Your task to perform on an android device: Open Google Chrome Image 0: 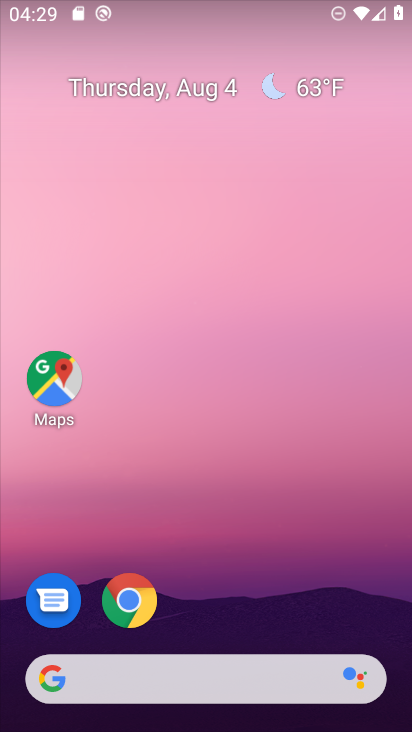
Step 0: drag from (310, 519) to (344, 105)
Your task to perform on an android device: Open Google Chrome Image 1: 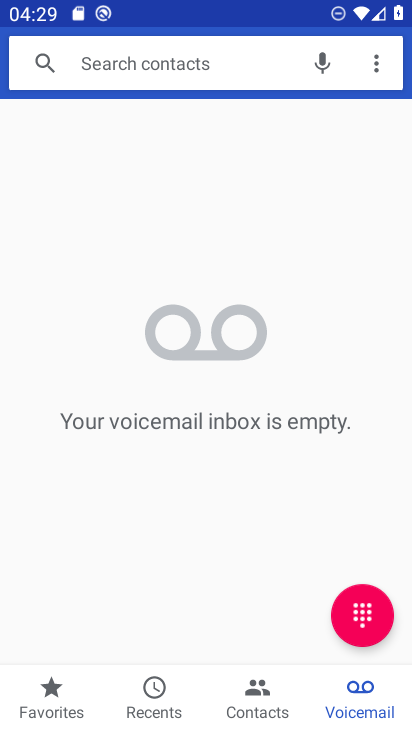
Step 1: press home button
Your task to perform on an android device: Open Google Chrome Image 2: 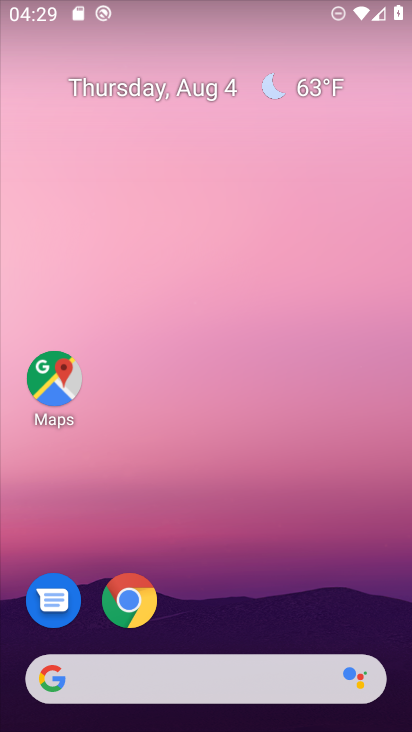
Step 2: drag from (266, 601) to (316, 99)
Your task to perform on an android device: Open Google Chrome Image 3: 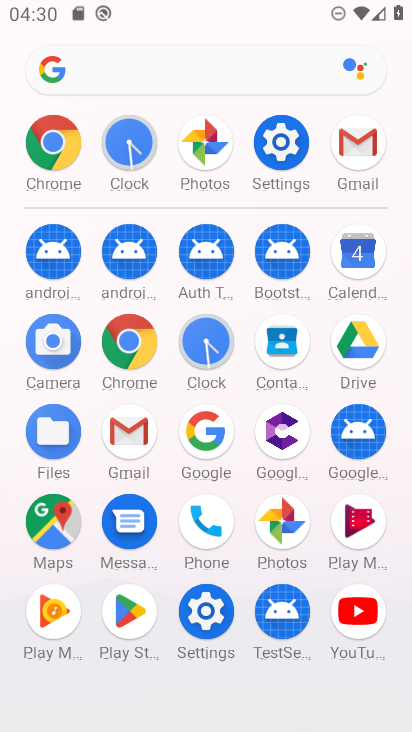
Step 3: click (118, 350)
Your task to perform on an android device: Open Google Chrome Image 4: 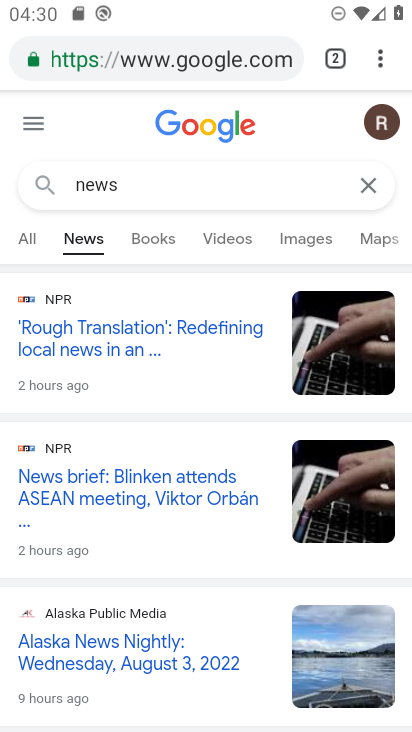
Step 4: task complete